Your task to perform on an android device: allow notifications from all sites in the chrome app Image 0: 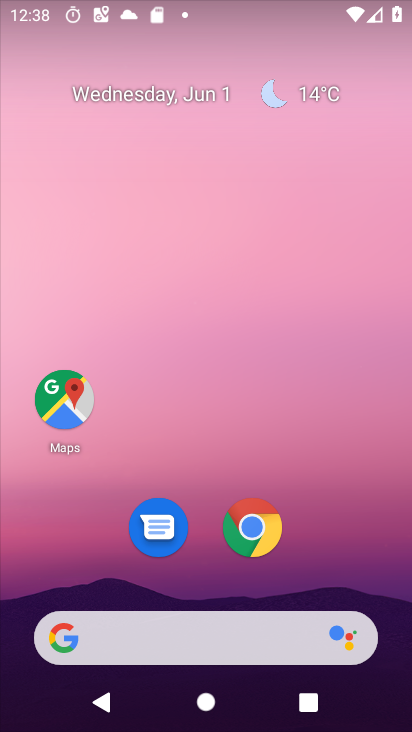
Step 0: click (262, 523)
Your task to perform on an android device: allow notifications from all sites in the chrome app Image 1: 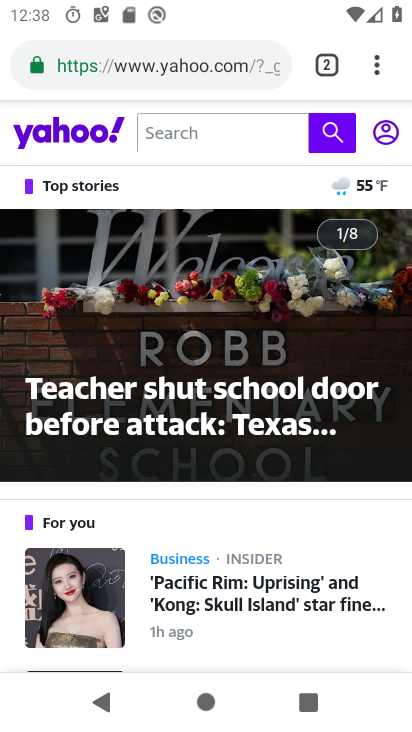
Step 1: drag from (379, 63) to (152, 587)
Your task to perform on an android device: allow notifications from all sites in the chrome app Image 2: 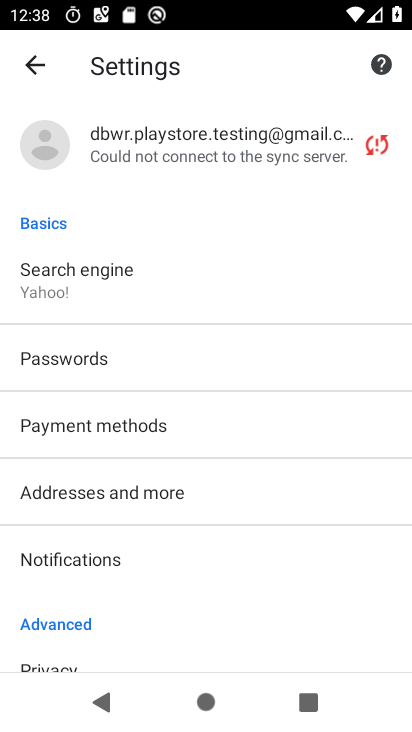
Step 2: click (86, 560)
Your task to perform on an android device: allow notifications from all sites in the chrome app Image 3: 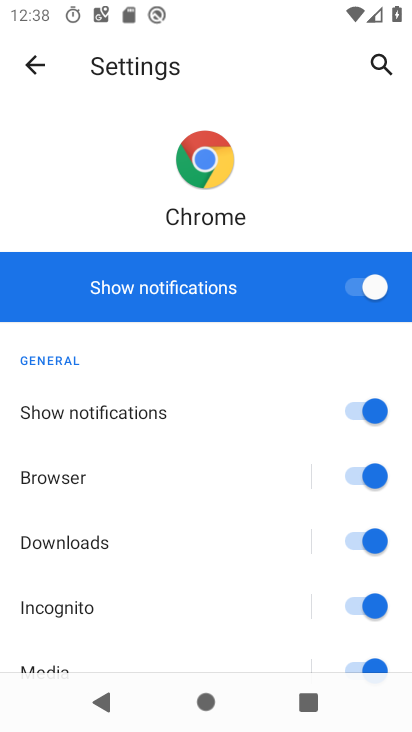
Step 3: task complete